Your task to perform on an android device: What's the weather today? Image 0: 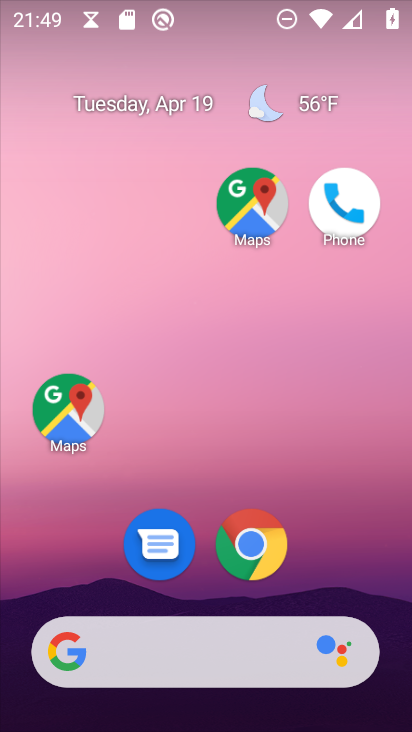
Step 0: drag from (145, 631) to (289, 39)
Your task to perform on an android device: What's the weather today? Image 1: 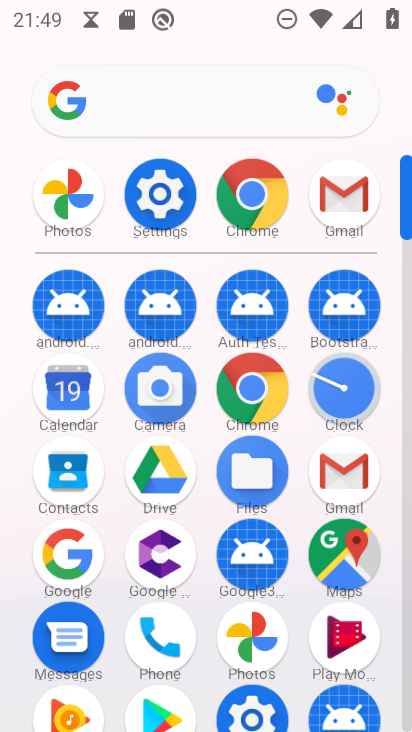
Step 1: click (79, 548)
Your task to perform on an android device: What's the weather today? Image 2: 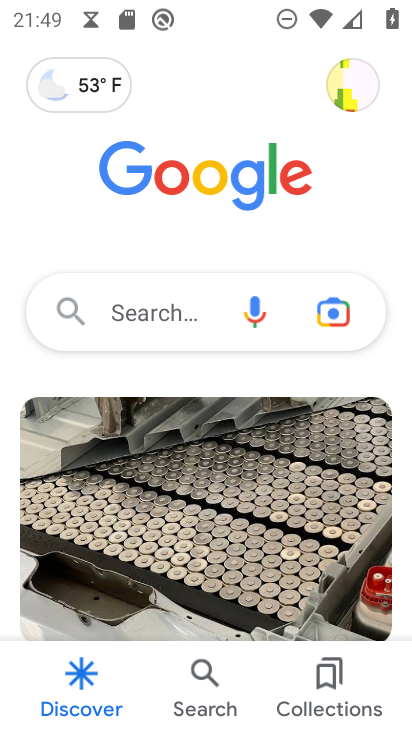
Step 2: click (92, 92)
Your task to perform on an android device: What's the weather today? Image 3: 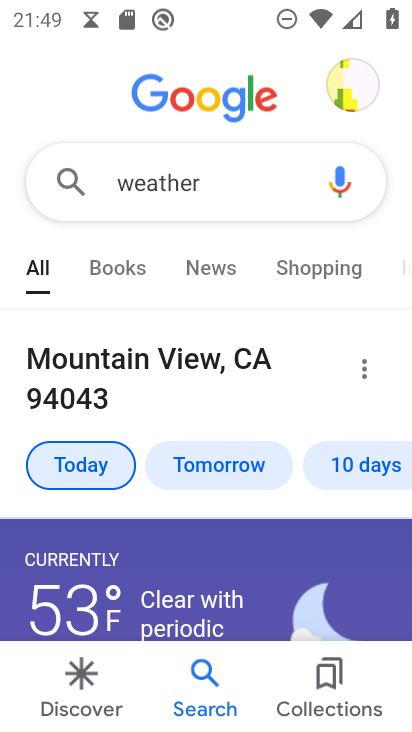
Step 3: task complete